Your task to perform on an android device: Go to Yahoo.com Image 0: 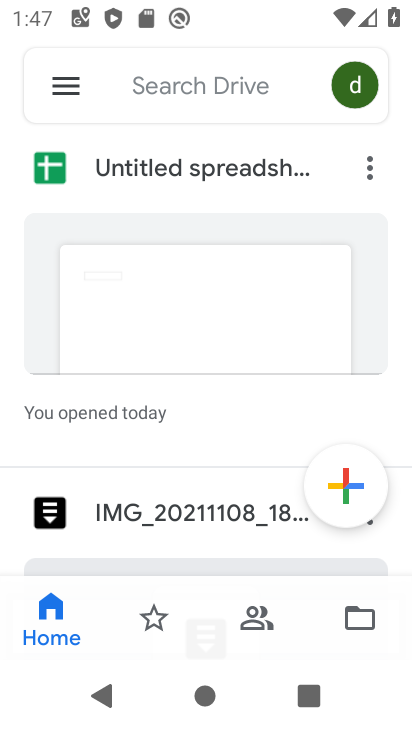
Step 0: press home button
Your task to perform on an android device: Go to Yahoo.com Image 1: 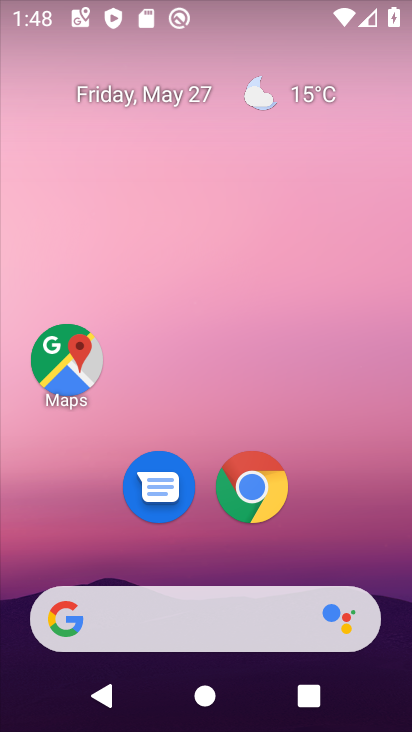
Step 1: click (255, 486)
Your task to perform on an android device: Go to Yahoo.com Image 2: 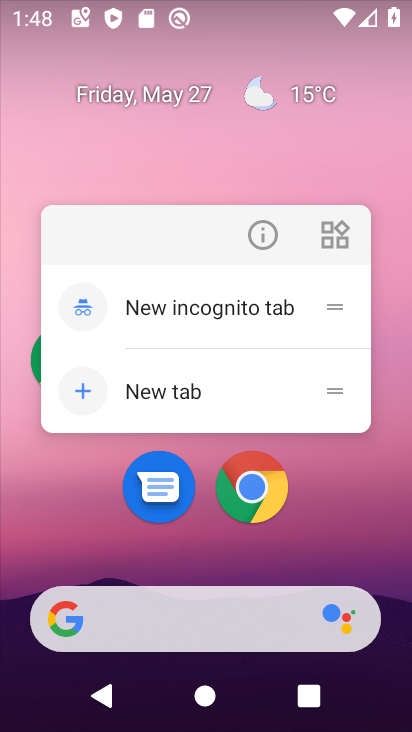
Step 2: click (254, 484)
Your task to perform on an android device: Go to Yahoo.com Image 3: 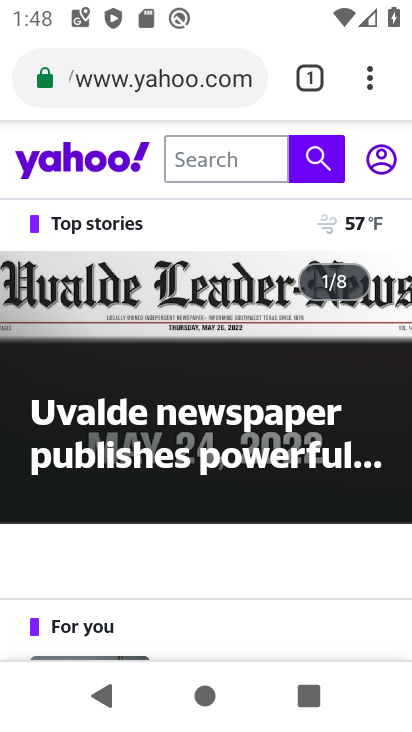
Step 3: click (228, 89)
Your task to perform on an android device: Go to Yahoo.com Image 4: 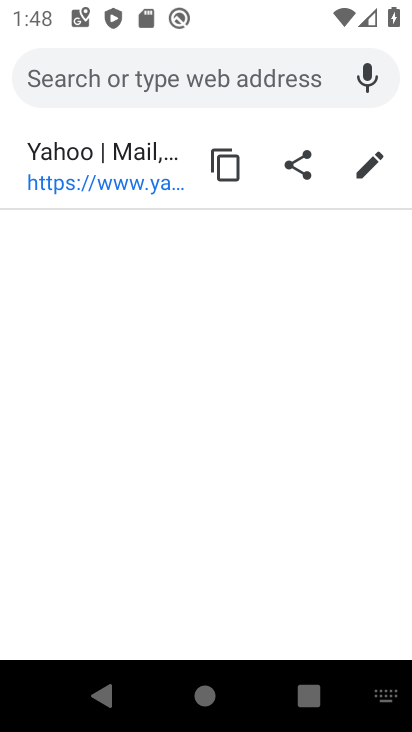
Step 4: task complete